Your task to perform on an android device: open a new tab in the chrome app Image 0: 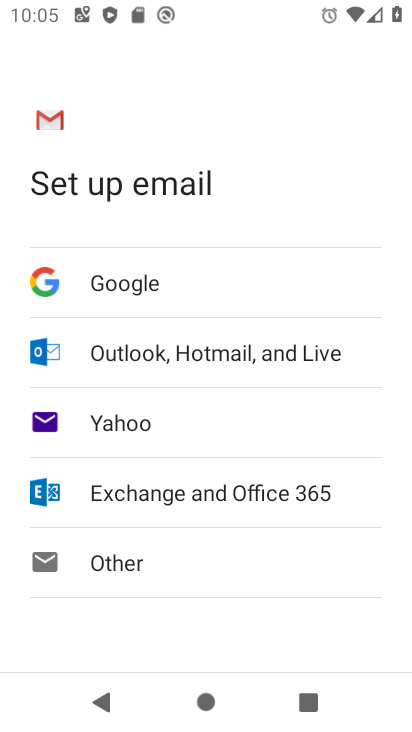
Step 0: press home button
Your task to perform on an android device: open a new tab in the chrome app Image 1: 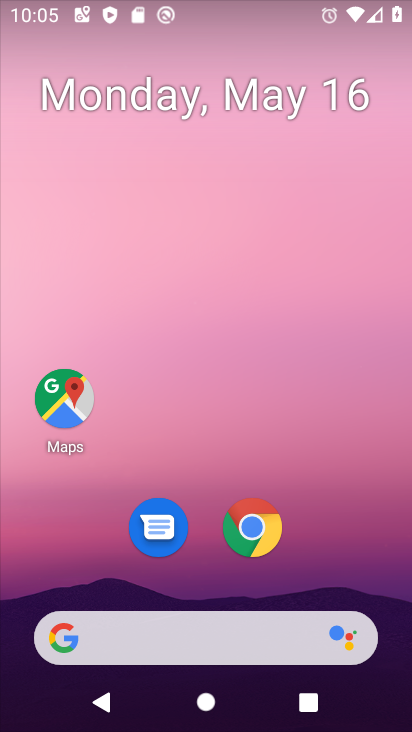
Step 1: click (259, 533)
Your task to perform on an android device: open a new tab in the chrome app Image 2: 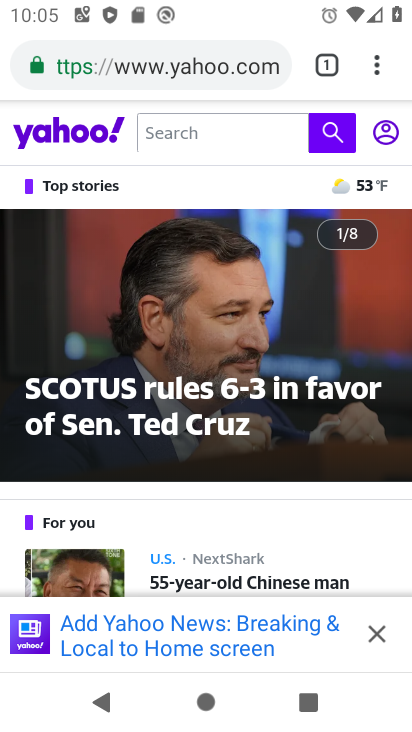
Step 2: click (376, 66)
Your task to perform on an android device: open a new tab in the chrome app Image 3: 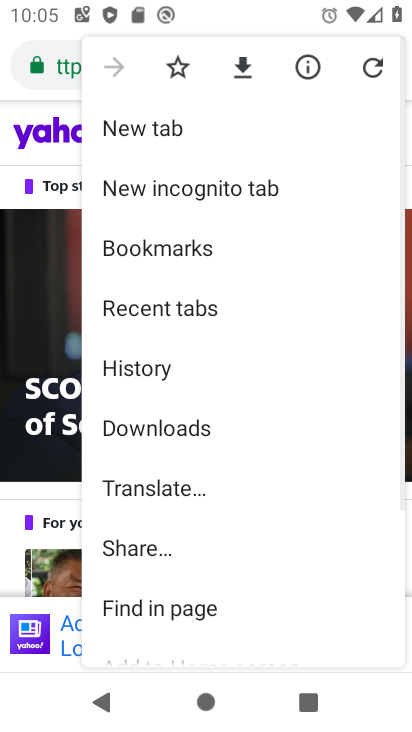
Step 3: click (135, 129)
Your task to perform on an android device: open a new tab in the chrome app Image 4: 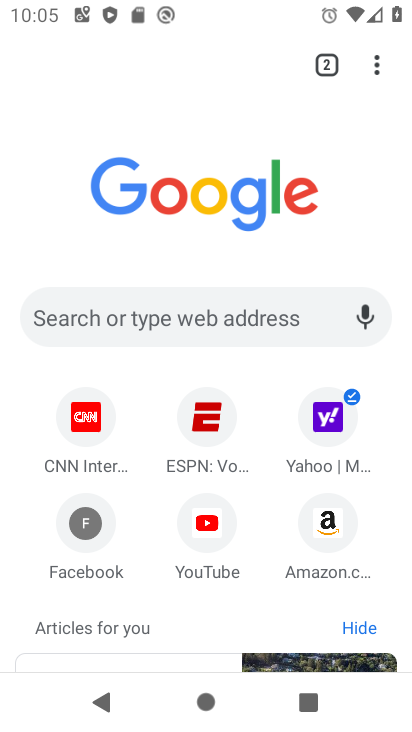
Step 4: task complete